Your task to perform on an android device: move an email to a new category in the gmail app Image 0: 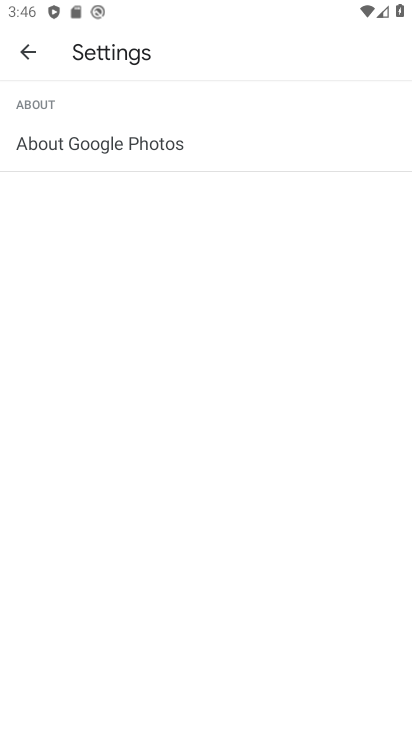
Step 0: press home button
Your task to perform on an android device: move an email to a new category in the gmail app Image 1: 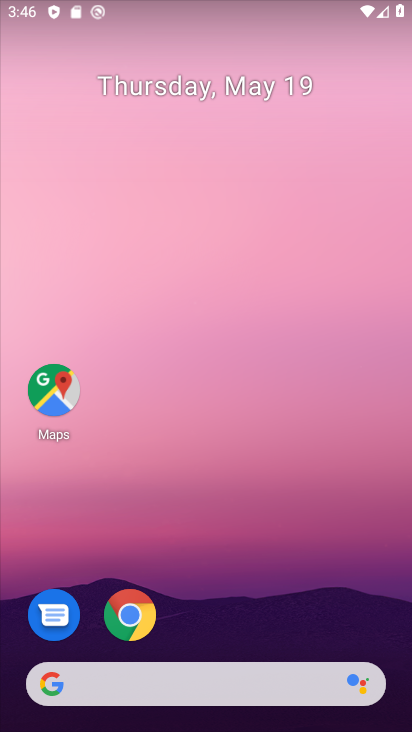
Step 1: drag from (270, 613) to (240, 15)
Your task to perform on an android device: move an email to a new category in the gmail app Image 2: 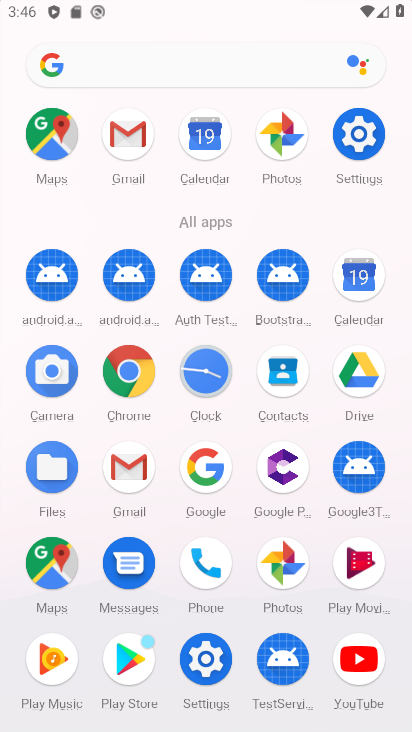
Step 2: click (126, 166)
Your task to perform on an android device: move an email to a new category in the gmail app Image 3: 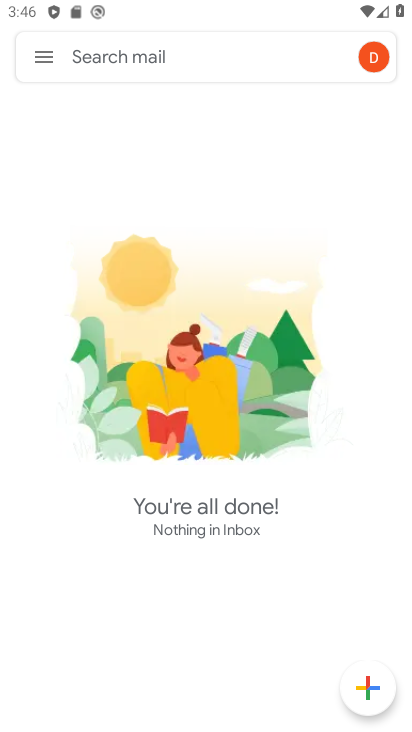
Step 3: click (47, 65)
Your task to perform on an android device: move an email to a new category in the gmail app Image 4: 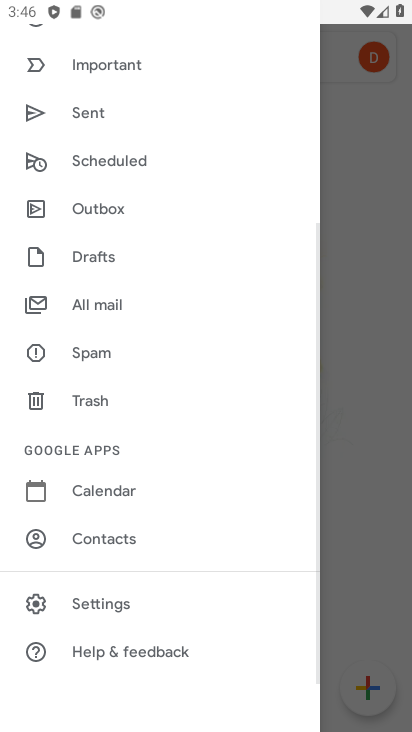
Step 4: click (91, 306)
Your task to perform on an android device: move an email to a new category in the gmail app Image 5: 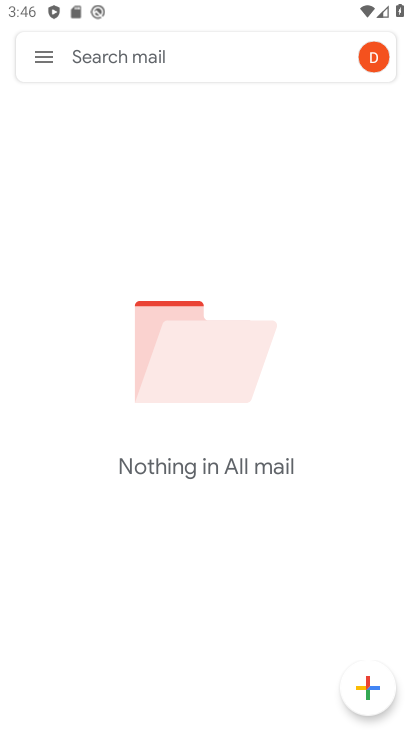
Step 5: task complete